Your task to perform on an android device: install app "LinkedIn" Image 0: 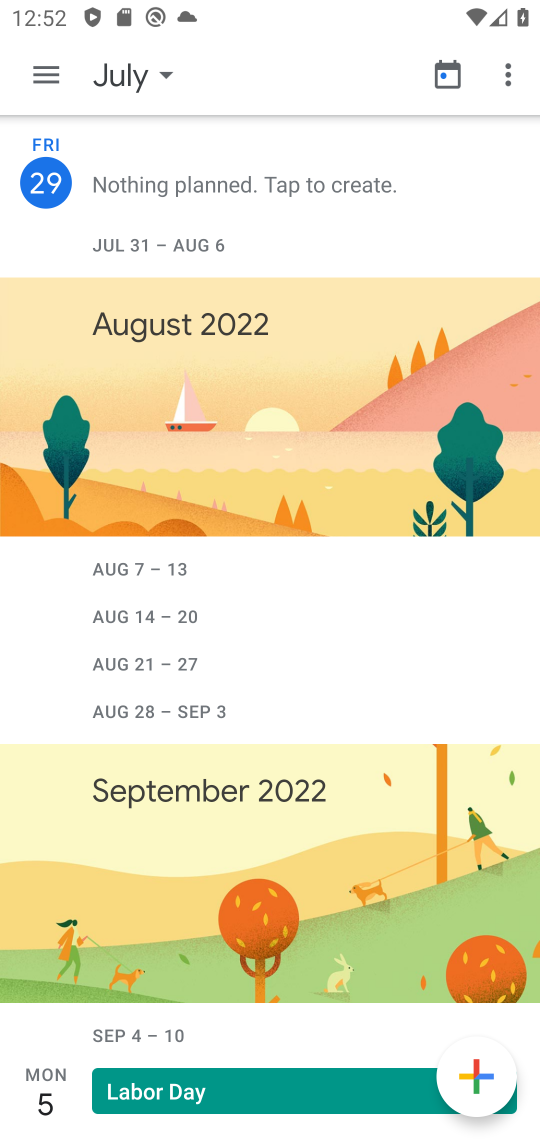
Step 0: press home button
Your task to perform on an android device: install app "LinkedIn" Image 1: 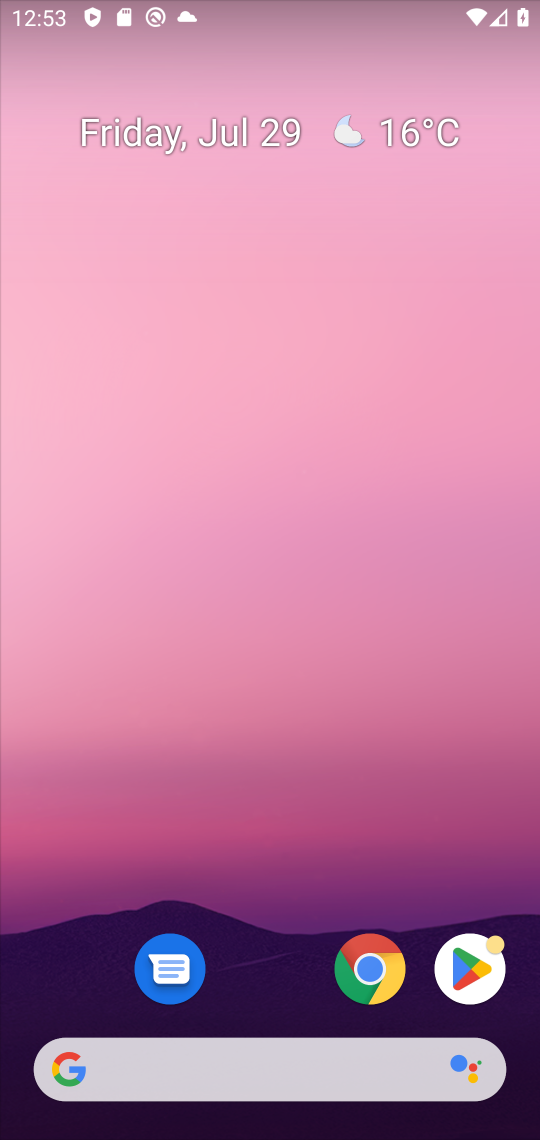
Step 1: click (480, 961)
Your task to perform on an android device: install app "LinkedIn" Image 2: 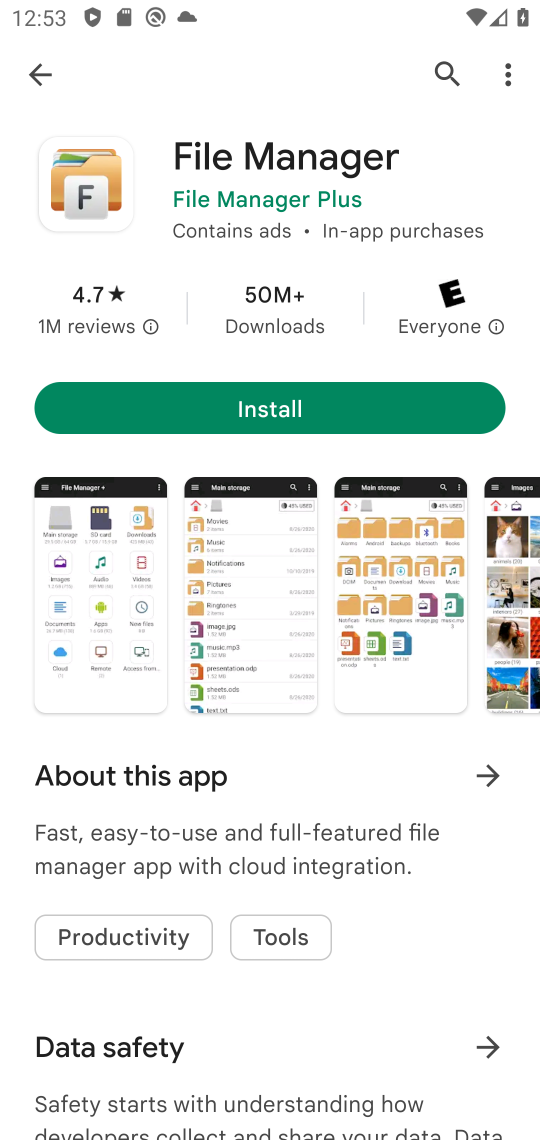
Step 2: click (445, 72)
Your task to perform on an android device: install app "LinkedIn" Image 3: 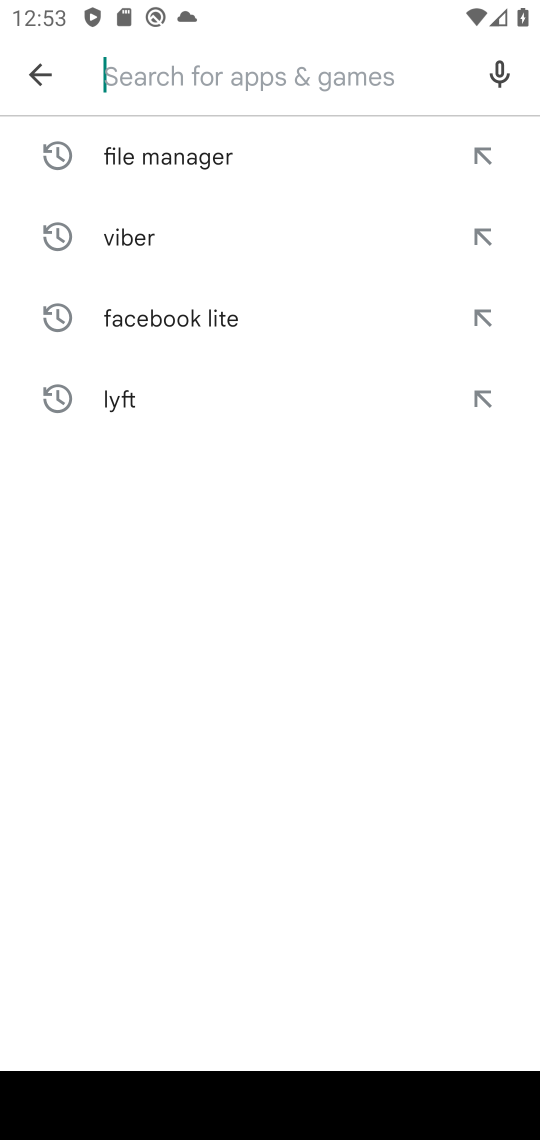
Step 3: type "linkedin"
Your task to perform on an android device: install app "LinkedIn" Image 4: 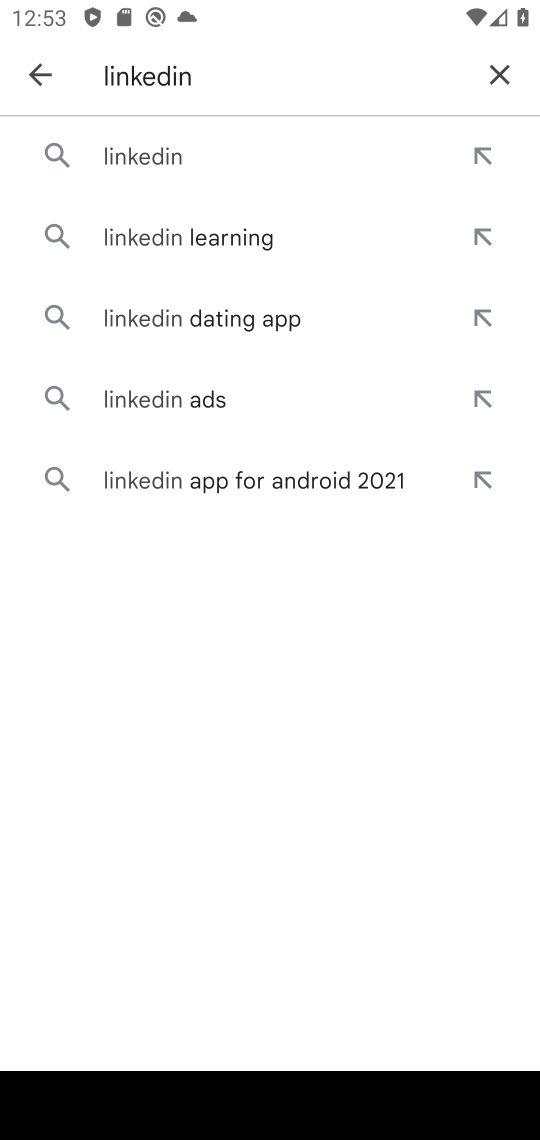
Step 4: click (197, 153)
Your task to perform on an android device: install app "LinkedIn" Image 5: 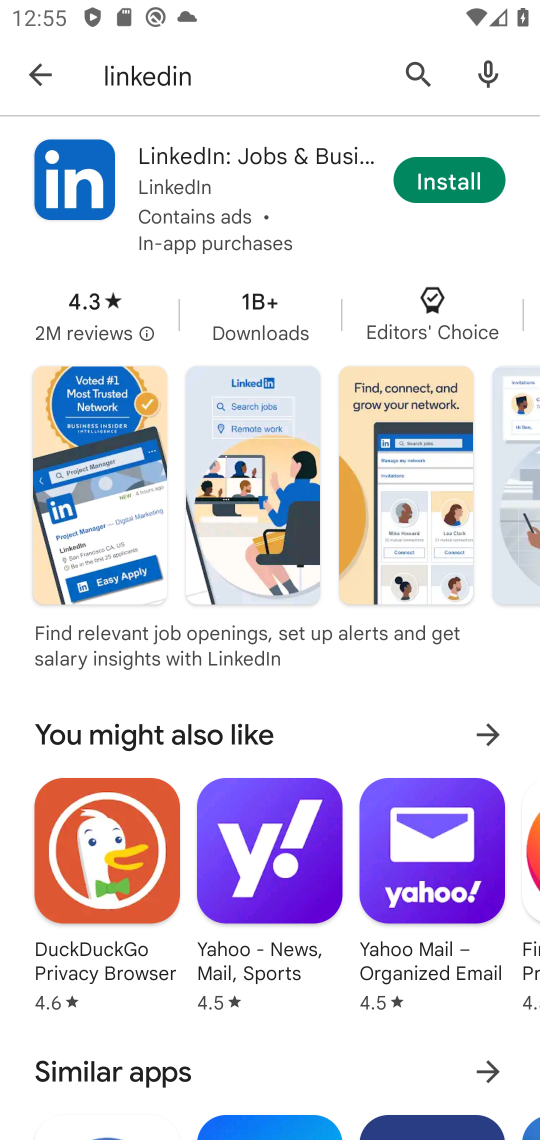
Step 5: click (408, 190)
Your task to perform on an android device: install app "LinkedIn" Image 6: 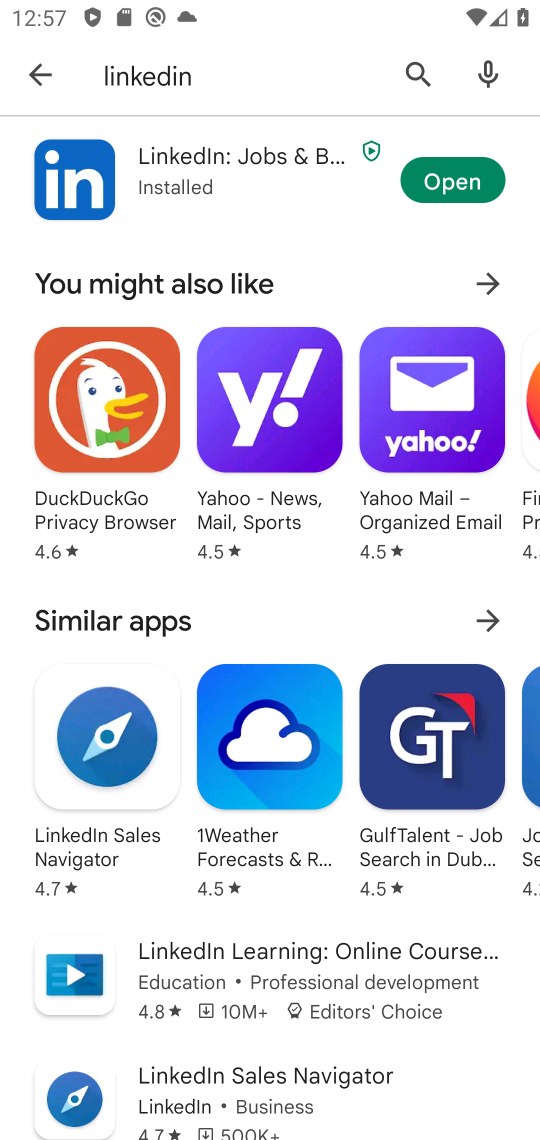
Step 6: task complete